Your task to perform on an android device: Open Chrome and go to settings Image 0: 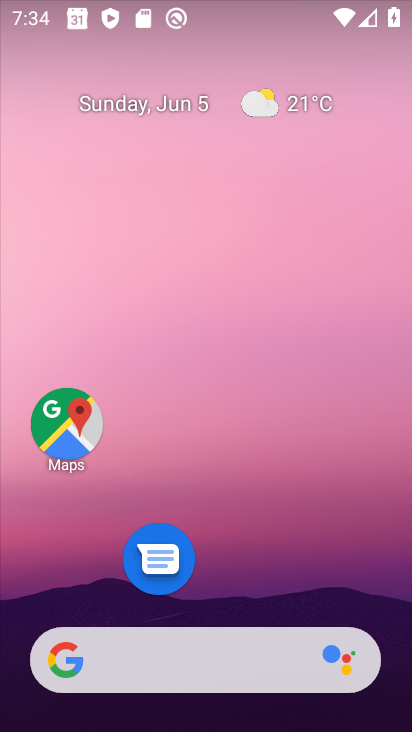
Step 0: drag from (194, 591) to (49, 0)
Your task to perform on an android device: Open Chrome and go to settings Image 1: 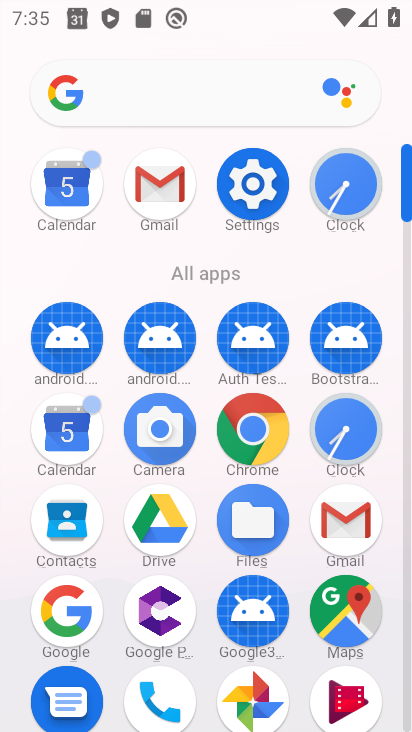
Step 1: click (256, 459)
Your task to perform on an android device: Open Chrome and go to settings Image 2: 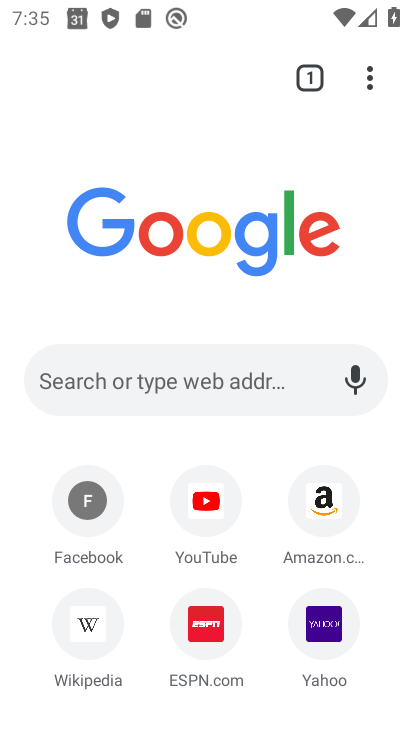
Step 2: task complete